Your task to perform on an android device: turn off improve location accuracy Image 0: 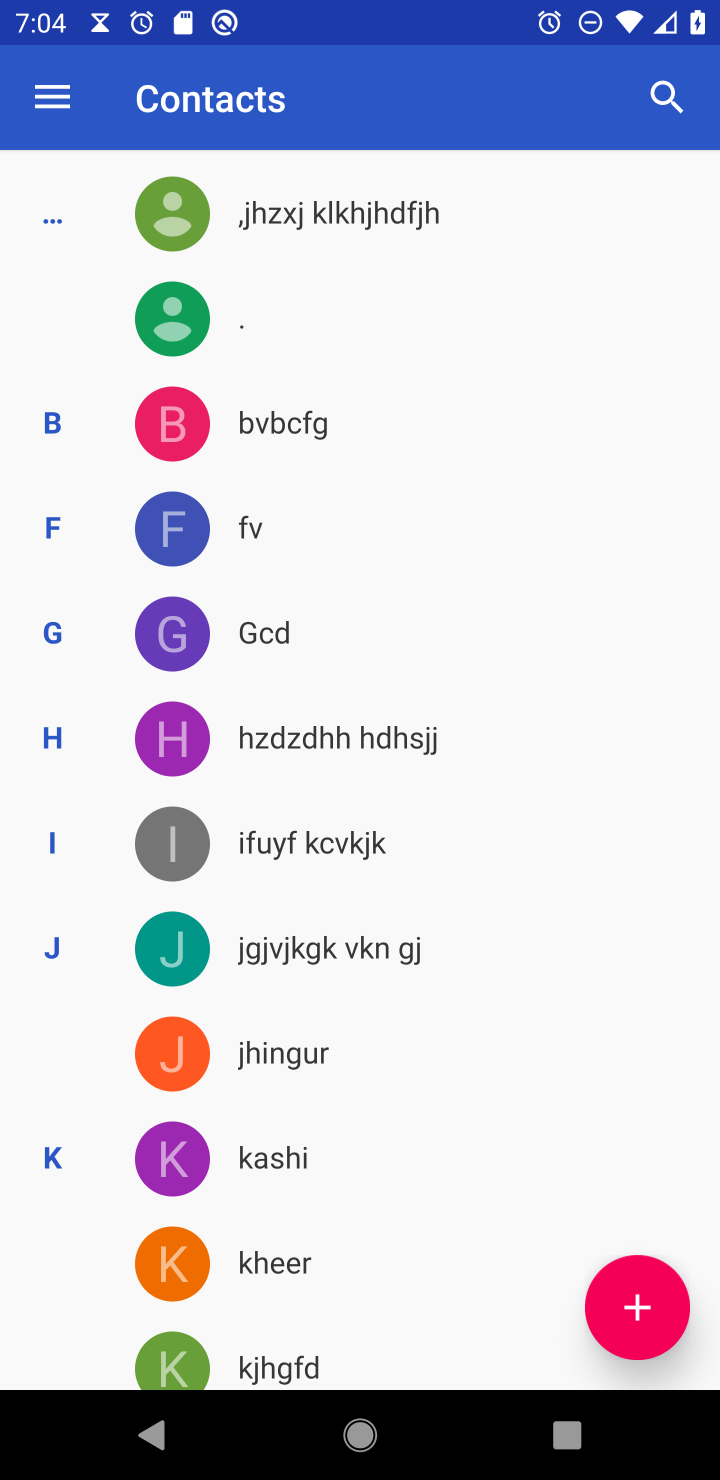
Step 0: press home button
Your task to perform on an android device: turn off improve location accuracy Image 1: 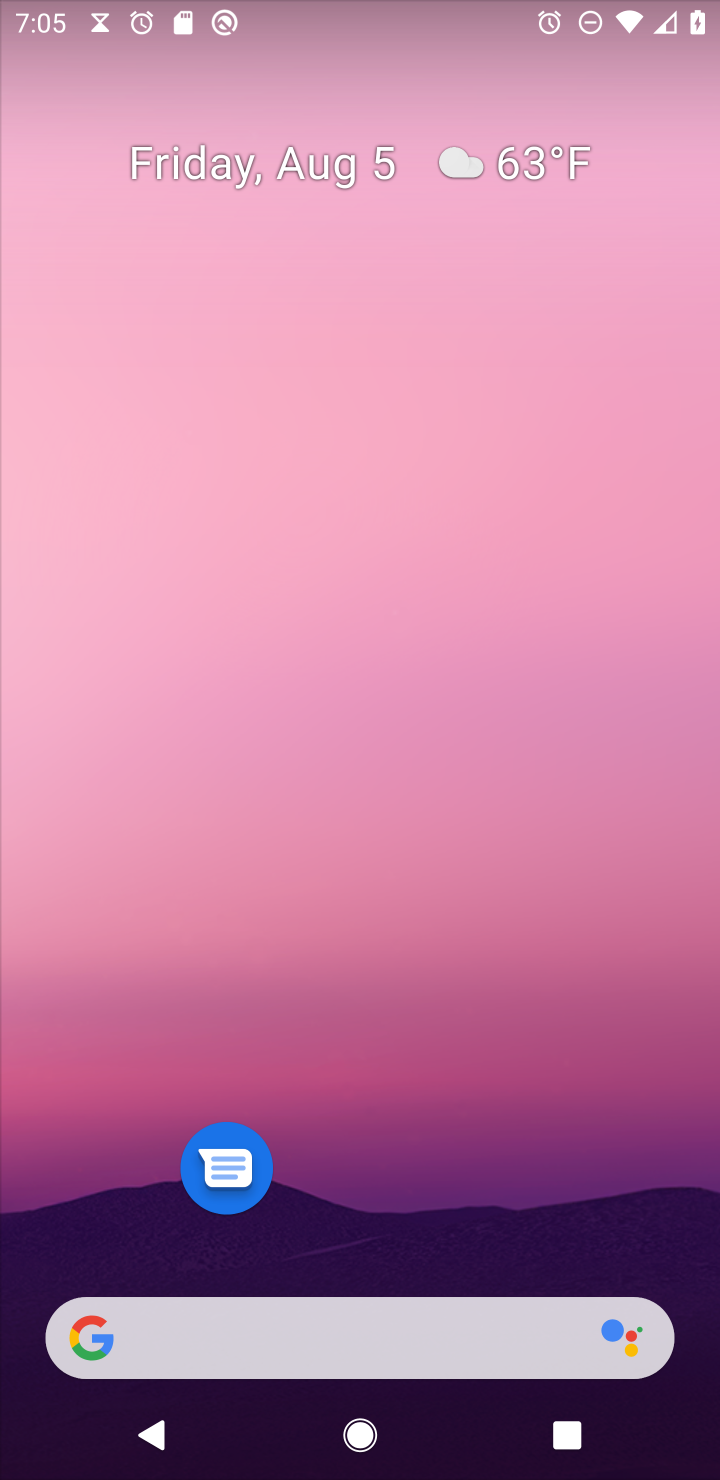
Step 1: drag from (400, 1258) to (443, 129)
Your task to perform on an android device: turn off improve location accuracy Image 2: 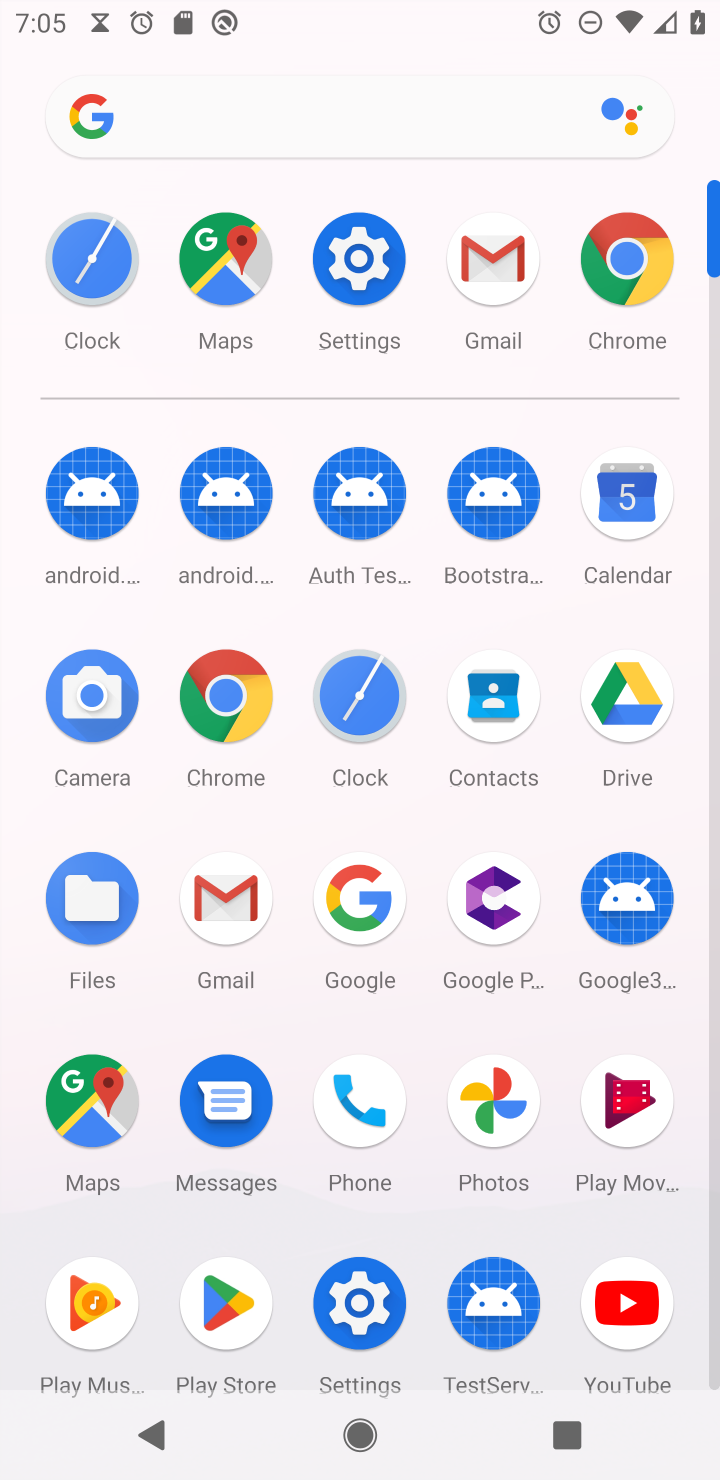
Step 2: click (367, 300)
Your task to perform on an android device: turn off improve location accuracy Image 3: 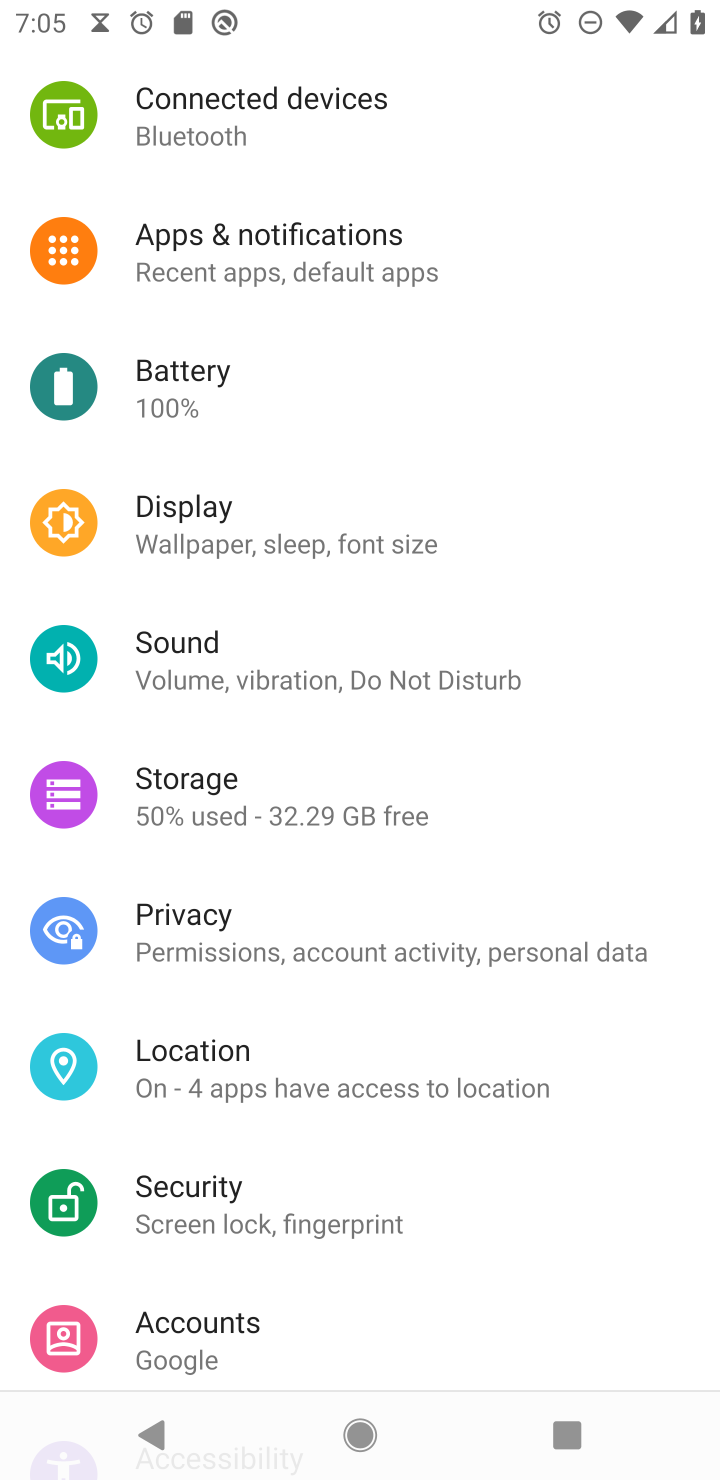
Step 3: click (200, 1079)
Your task to perform on an android device: turn off improve location accuracy Image 4: 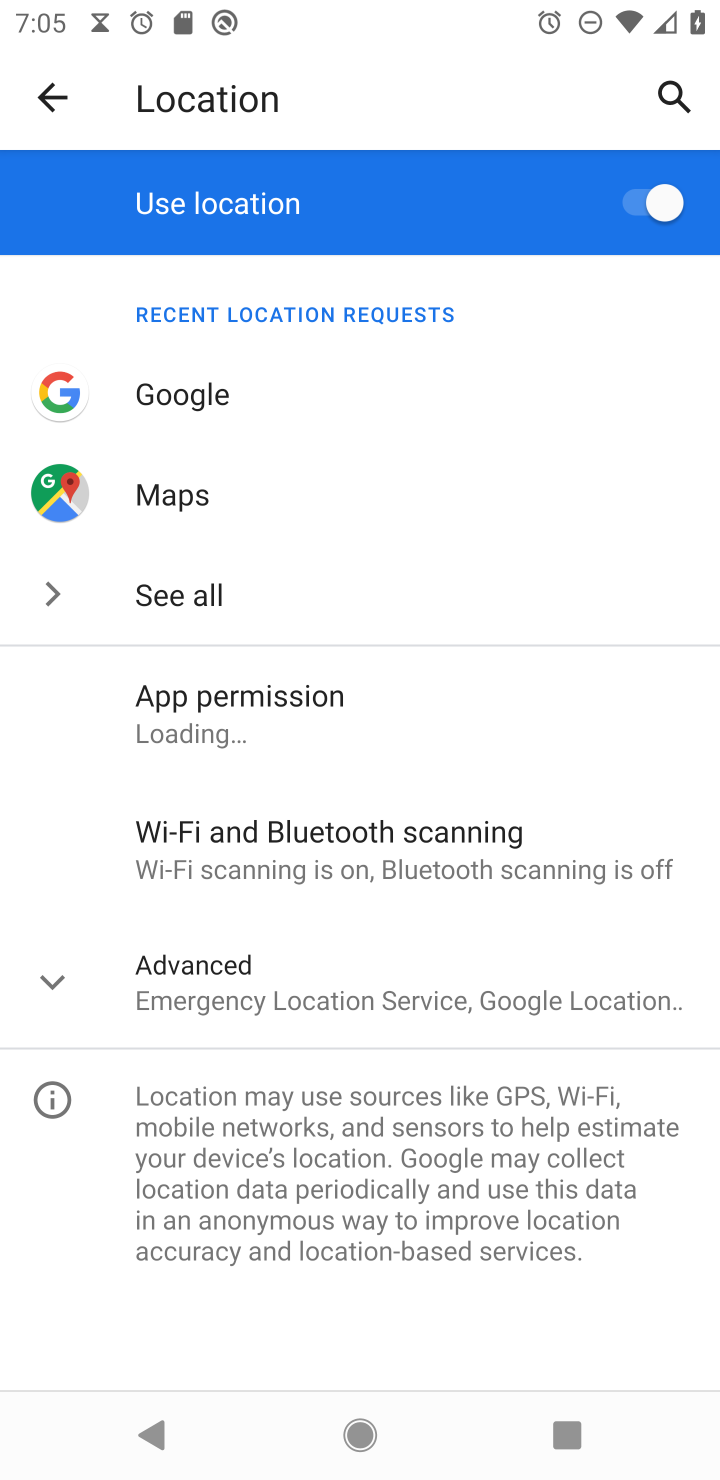
Step 4: click (270, 968)
Your task to perform on an android device: turn off improve location accuracy Image 5: 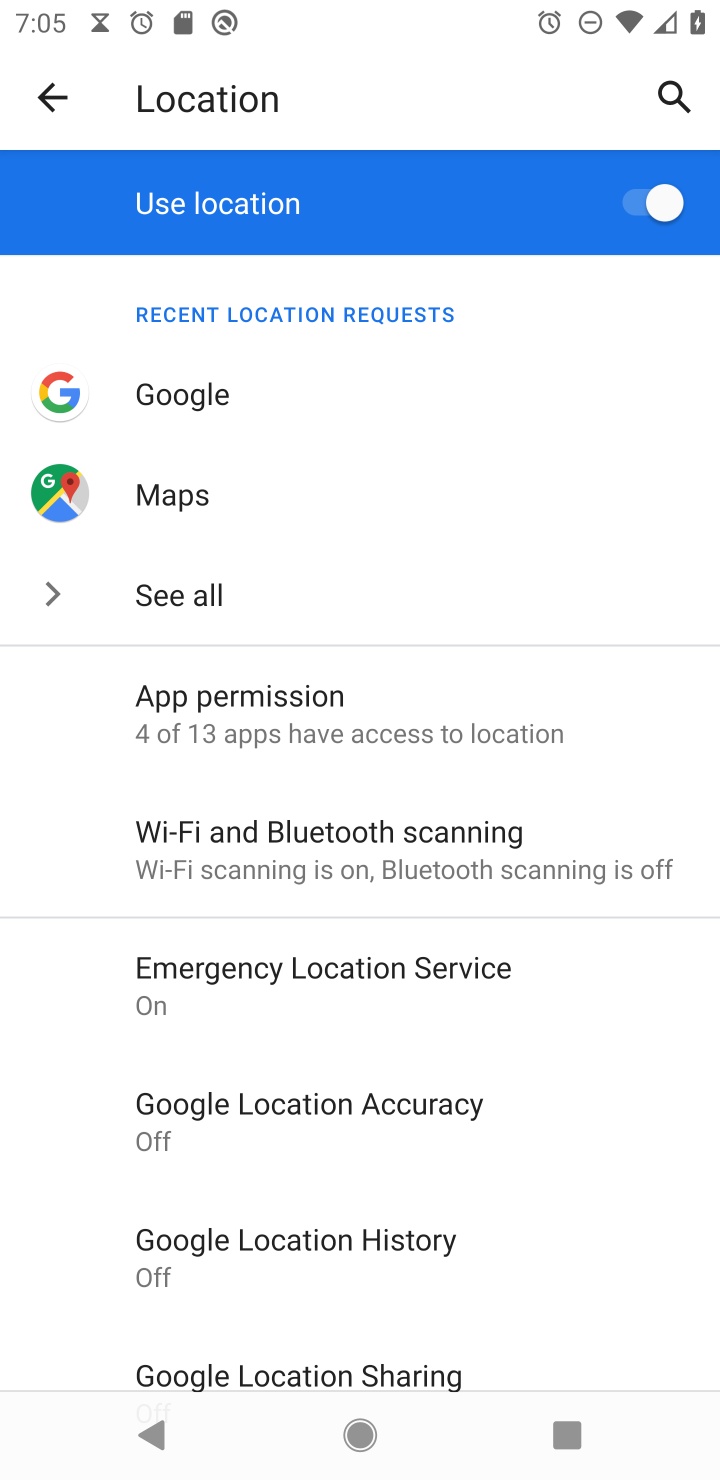
Step 5: click (338, 1106)
Your task to perform on an android device: turn off improve location accuracy Image 6: 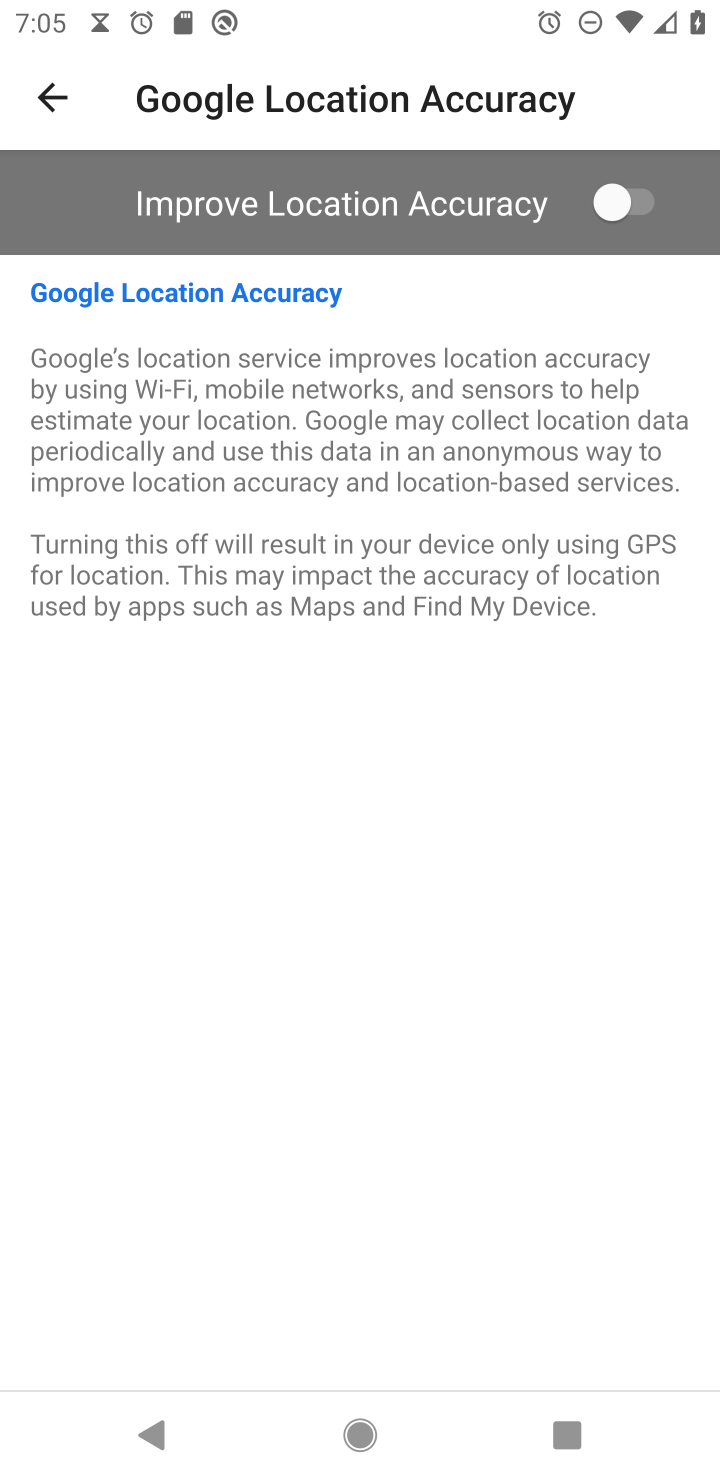
Step 6: task complete